Your task to perform on an android device: Go to network settings Image 0: 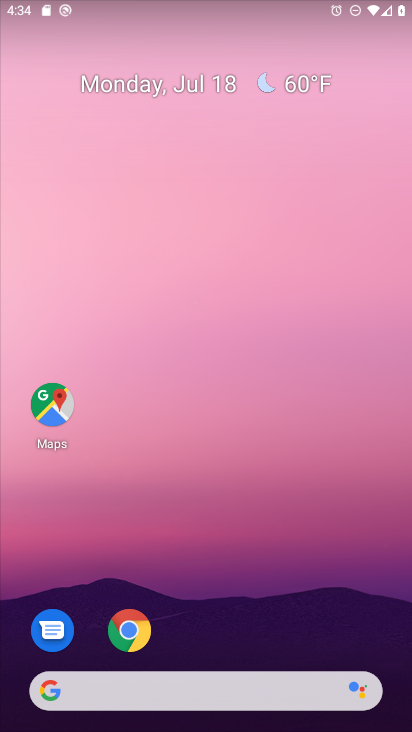
Step 0: drag from (215, 568) to (181, 139)
Your task to perform on an android device: Go to network settings Image 1: 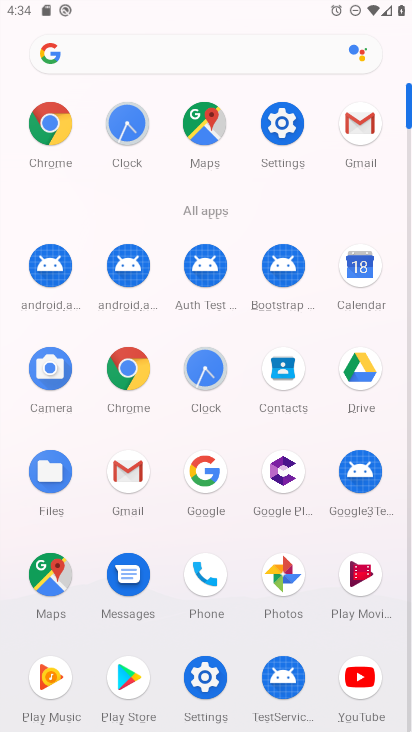
Step 1: click (282, 126)
Your task to perform on an android device: Go to network settings Image 2: 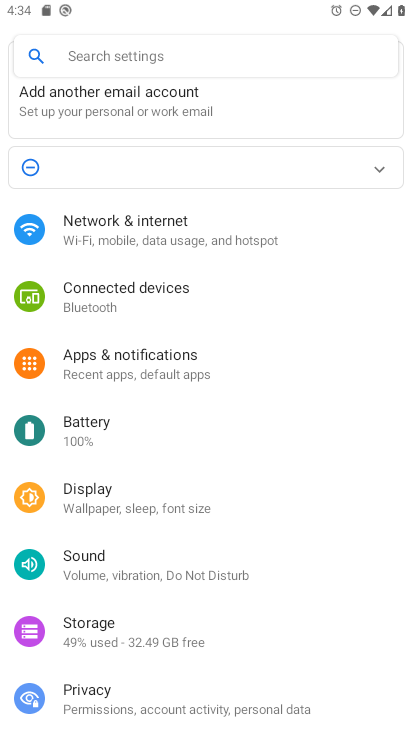
Step 2: click (136, 218)
Your task to perform on an android device: Go to network settings Image 3: 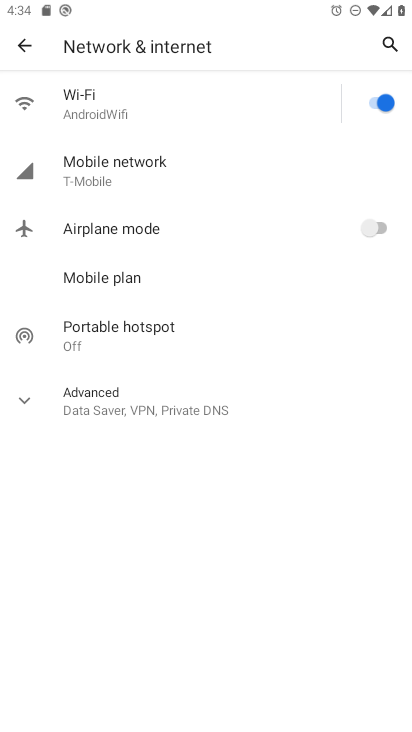
Step 3: task complete